Your task to perform on an android device: Go to internet settings Image 0: 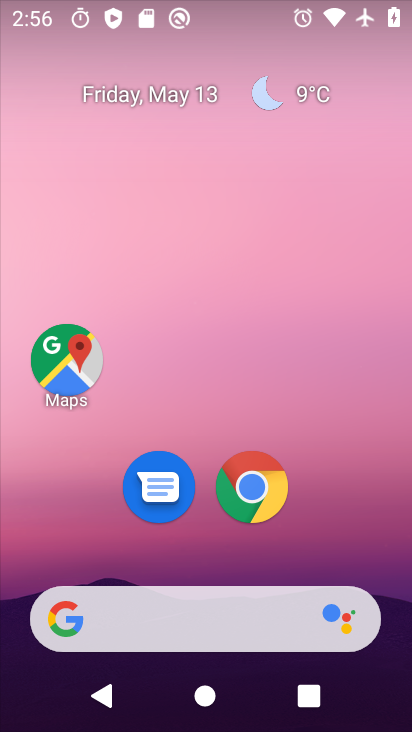
Step 0: drag from (216, 553) to (306, 89)
Your task to perform on an android device: Go to internet settings Image 1: 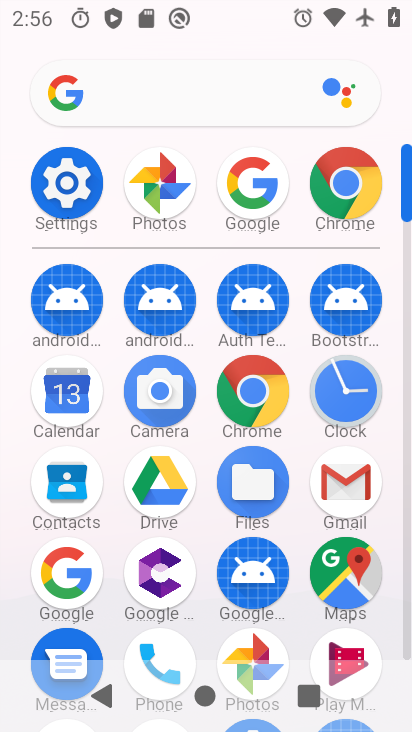
Step 1: click (71, 180)
Your task to perform on an android device: Go to internet settings Image 2: 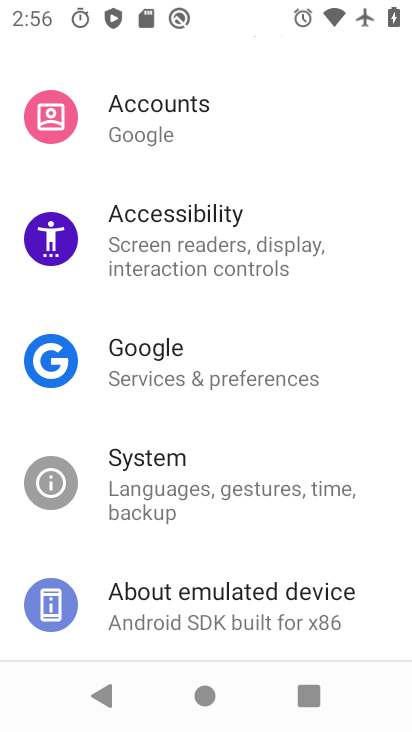
Step 2: drag from (223, 163) to (258, 597)
Your task to perform on an android device: Go to internet settings Image 3: 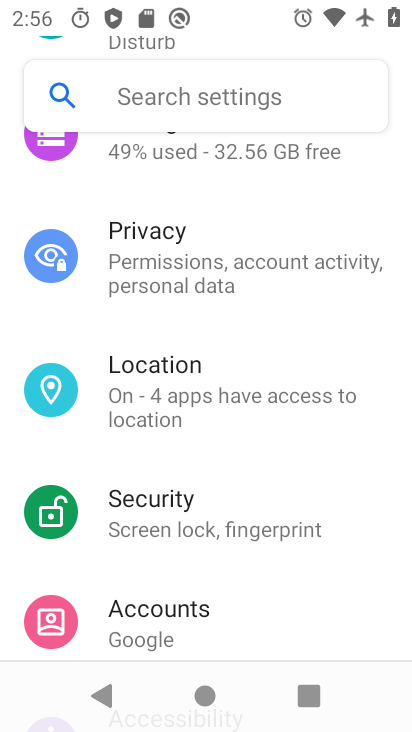
Step 3: drag from (221, 213) to (238, 569)
Your task to perform on an android device: Go to internet settings Image 4: 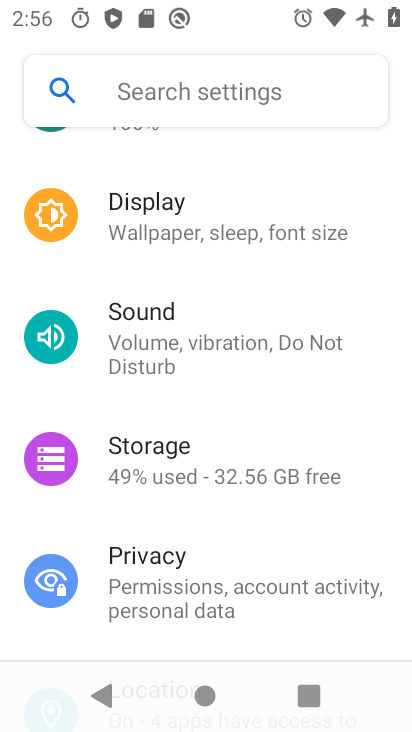
Step 4: drag from (207, 165) to (225, 602)
Your task to perform on an android device: Go to internet settings Image 5: 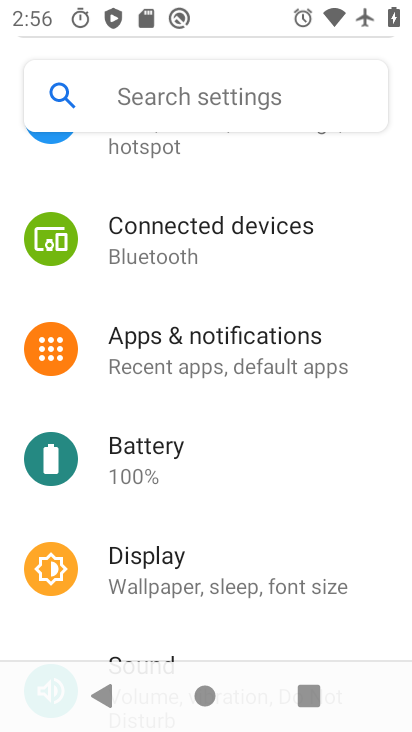
Step 5: drag from (189, 173) to (207, 542)
Your task to perform on an android device: Go to internet settings Image 6: 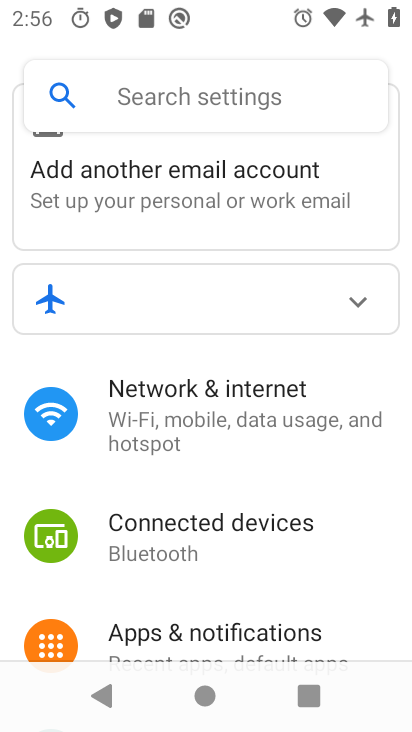
Step 6: click (162, 410)
Your task to perform on an android device: Go to internet settings Image 7: 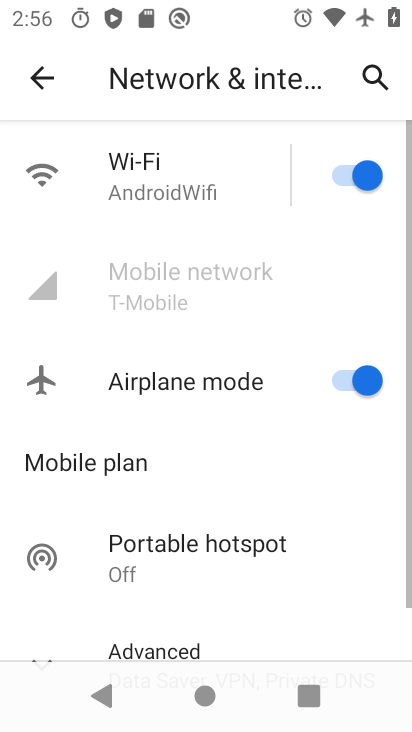
Step 7: drag from (235, 546) to (240, 580)
Your task to perform on an android device: Go to internet settings Image 8: 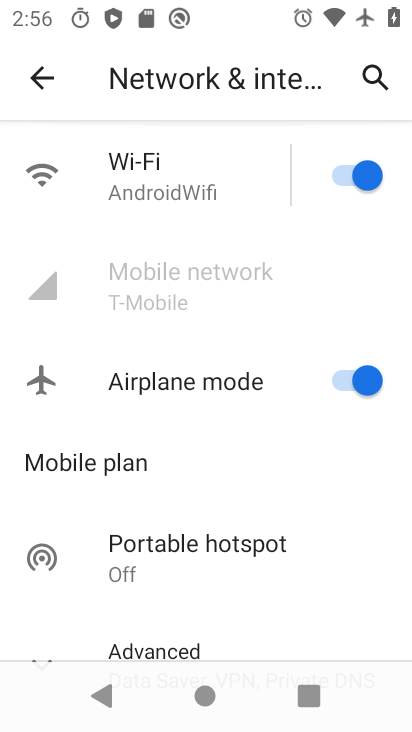
Step 8: click (142, 185)
Your task to perform on an android device: Go to internet settings Image 9: 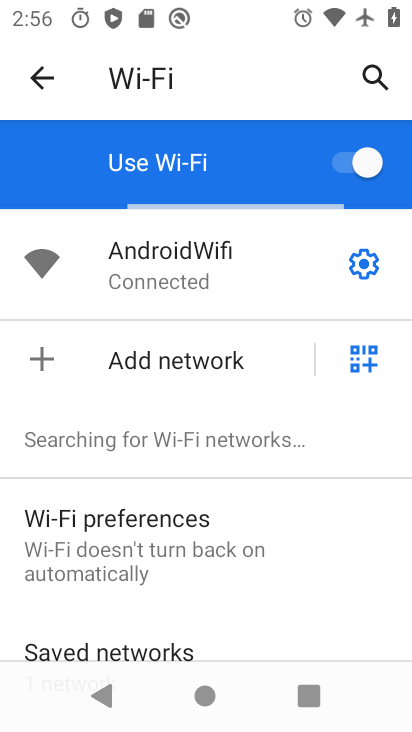
Step 9: click (355, 260)
Your task to perform on an android device: Go to internet settings Image 10: 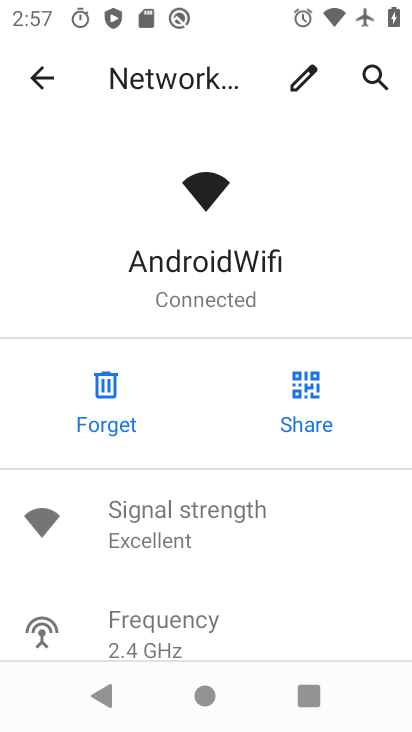
Step 10: task complete